Your task to perform on an android device: turn off data saver in the chrome app Image 0: 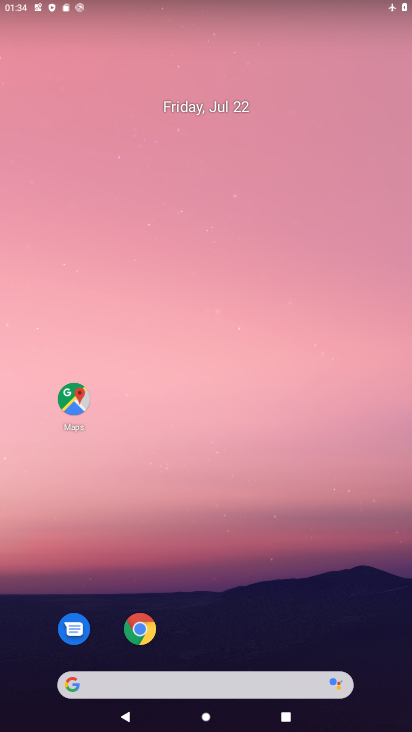
Step 0: click (136, 629)
Your task to perform on an android device: turn off data saver in the chrome app Image 1: 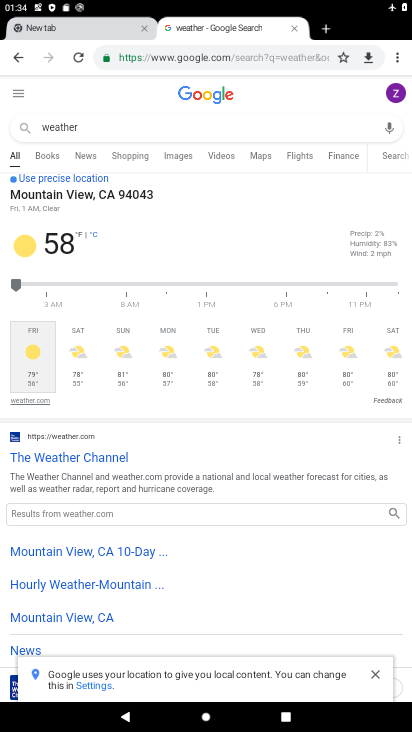
Step 1: click (398, 61)
Your task to perform on an android device: turn off data saver in the chrome app Image 2: 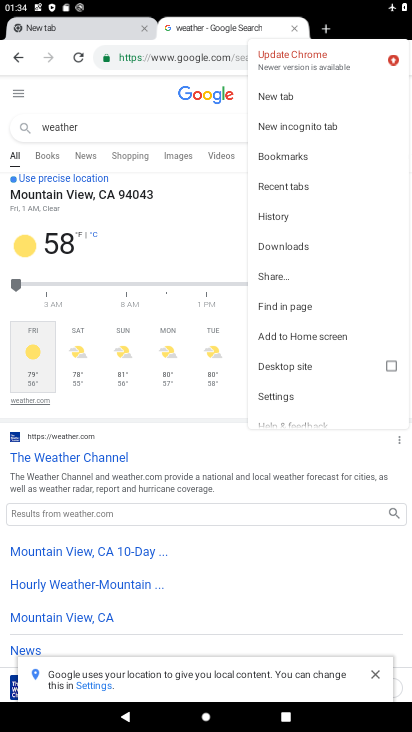
Step 2: click (277, 400)
Your task to perform on an android device: turn off data saver in the chrome app Image 3: 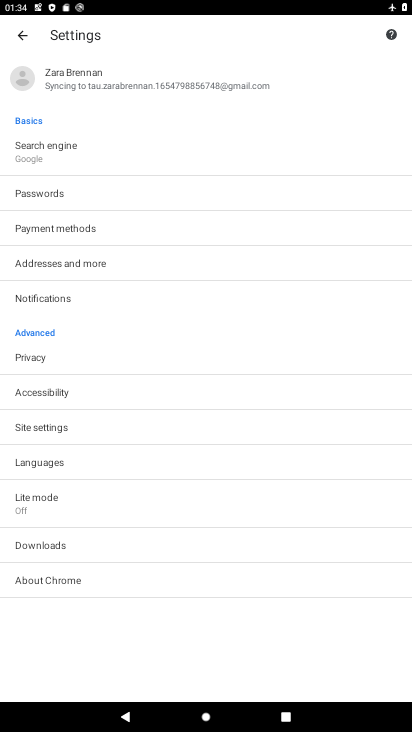
Step 3: click (74, 494)
Your task to perform on an android device: turn off data saver in the chrome app Image 4: 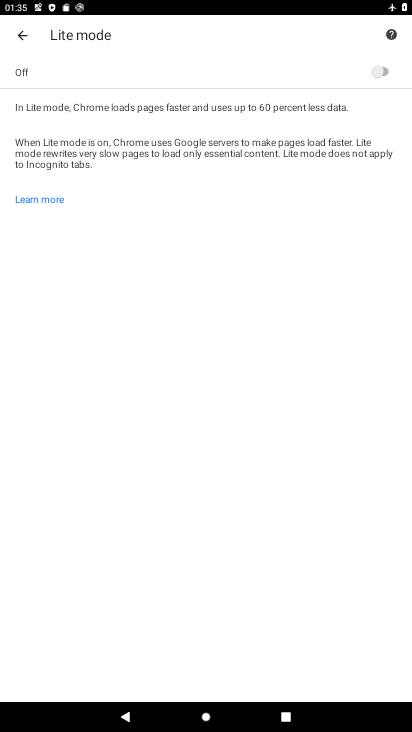
Step 4: task complete